Your task to perform on an android device: Open the stopwatch Image 0: 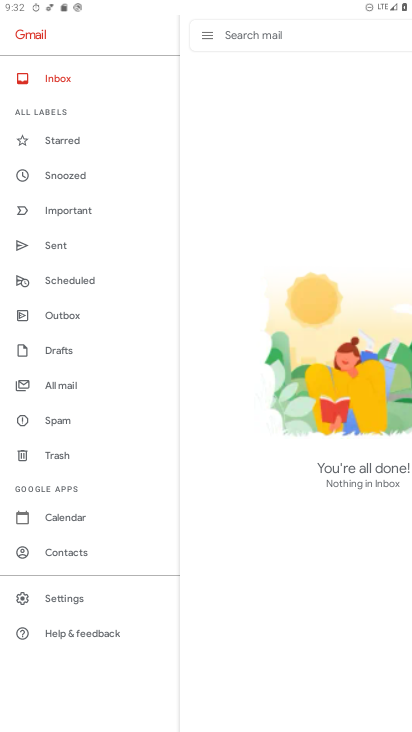
Step 0: press home button
Your task to perform on an android device: Open the stopwatch Image 1: 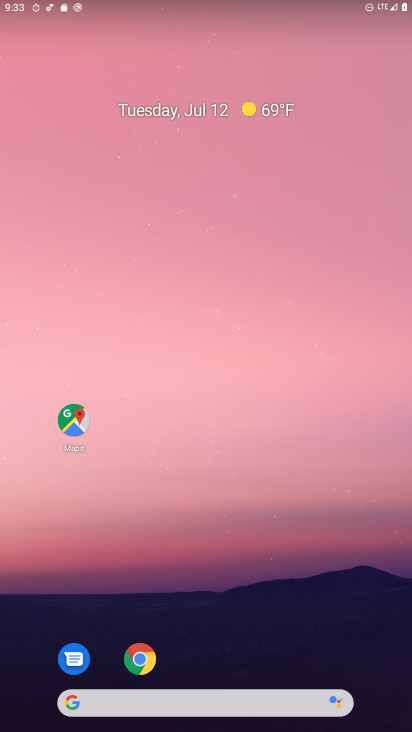
Step 1: drag from (198, 729) to (196, 45)
Your task to perform on an android device: Open the stopwatch Image 2: 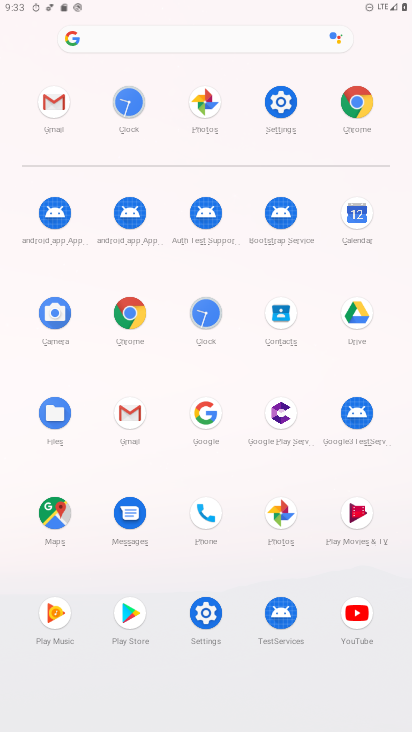
Step 2: click (207, 315)
Your task to perform on an android device: Open the stopwatch Image 3: 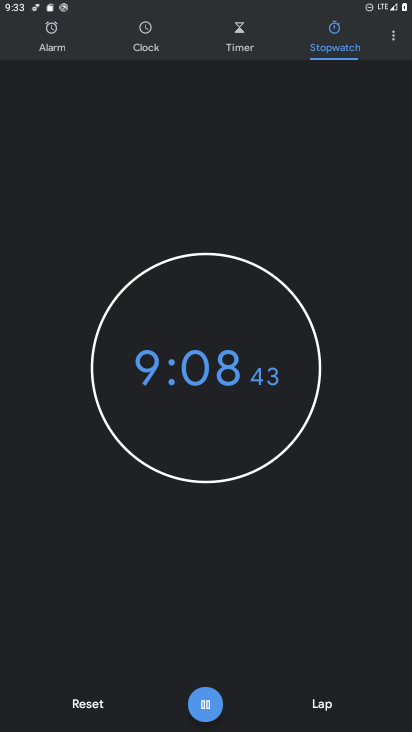
Step 3: task complete